Your task to perform on an android device: Open settings Image 0: 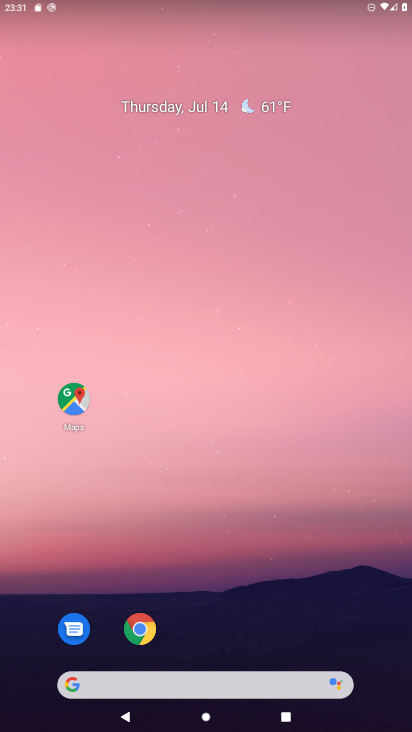
Step 0: drag from (174, 632) to (209, 131)
Your task to perform on an android device: Open settings Image 1: 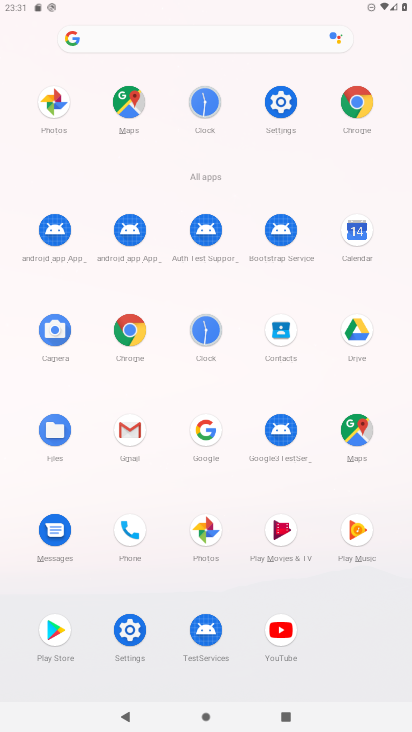
Step 1: click (286, 110)
Your task to perform on an android device: Open settings Image 2: 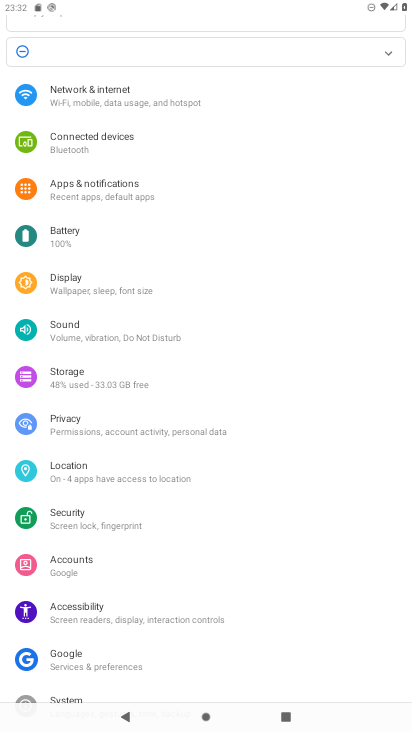
Step 2: task complete